Your task to perform on an android device: find snoozed emails in the gmail app Image 0: 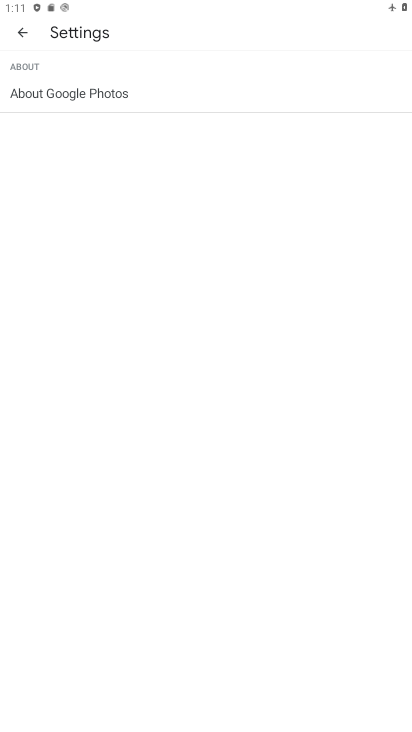
Step 0: press home button
Your task to perform on an android device: find snoozed emails in the gmail app Image 1: 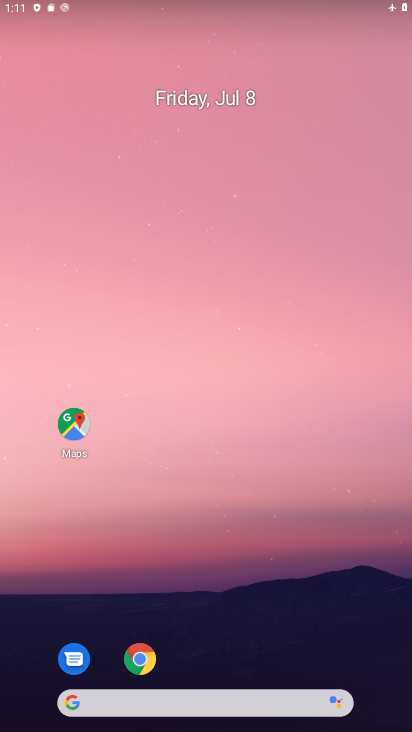
Step 1: drag from (285, 606) to (367, 4)
Your task to perform on an android device: find snoozed emails in the gmail app Image 2: 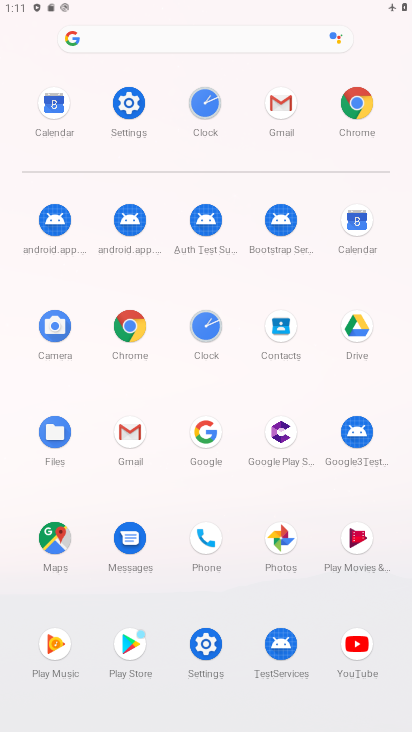
Step 2: click (132, 440)
Your task to perform on an android device: find snoozed emails in the gmail app Image 3: 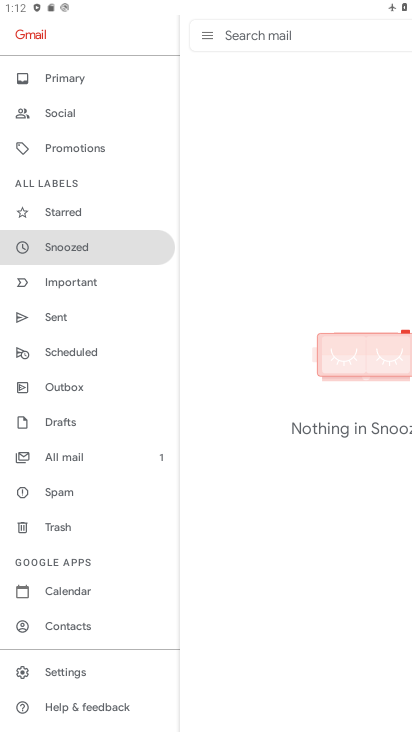
Step 3: click (89, 250)
Your task to perform on an android device: find snoozed emails in the gmail app Image 4: 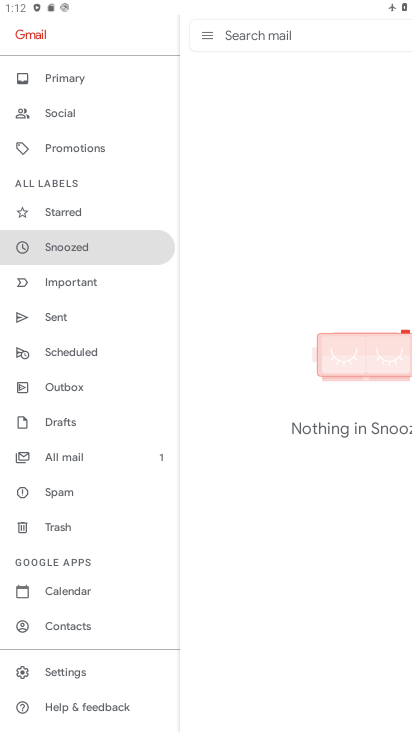
Step 4: task complete